Your task to perform on an android device: open app "Instagram" (install if not already installed) Image 0: 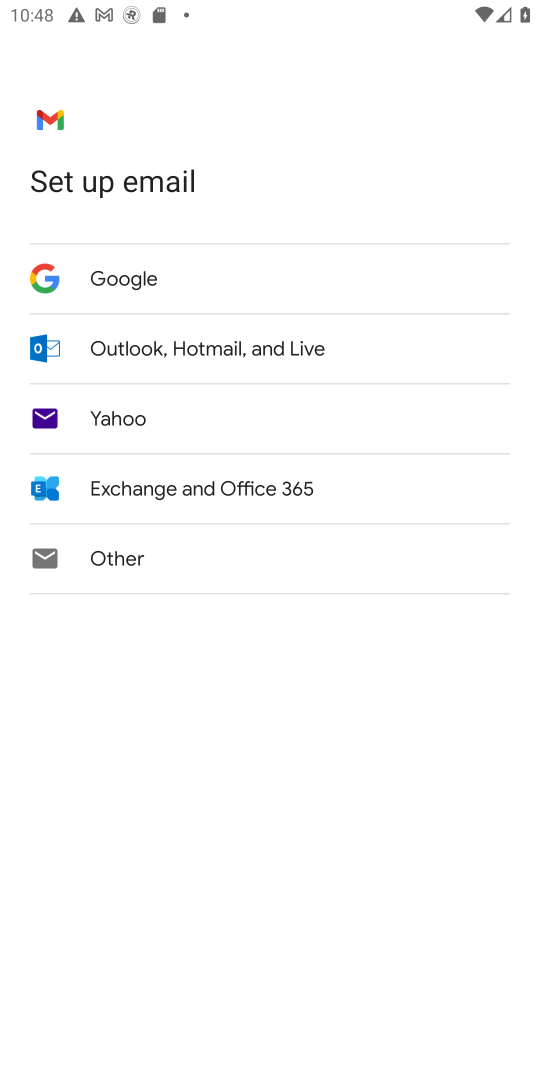
Step 0: press home button
Your task to perform on an android device: open app "Instagram" (install if not already installed) Image 1: 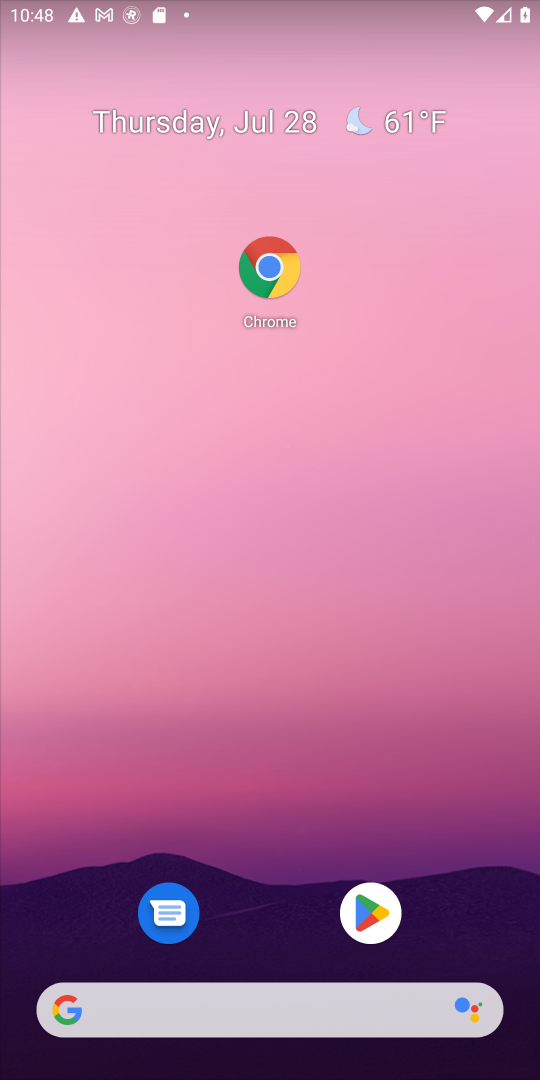
Step 1: click (368, 925)
Your task to perform on an android device: open app "Instagram" (install if not already installed) Image 2: 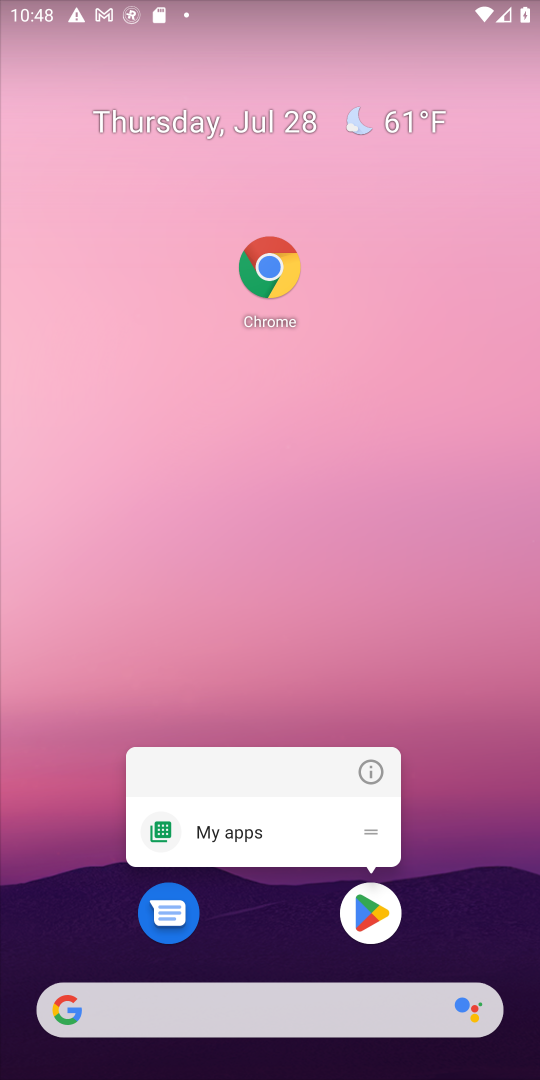
Step 2: click (363, 926)
Your task to perform on an android device: open app "Instagram" (install if not already installed) Image 3: 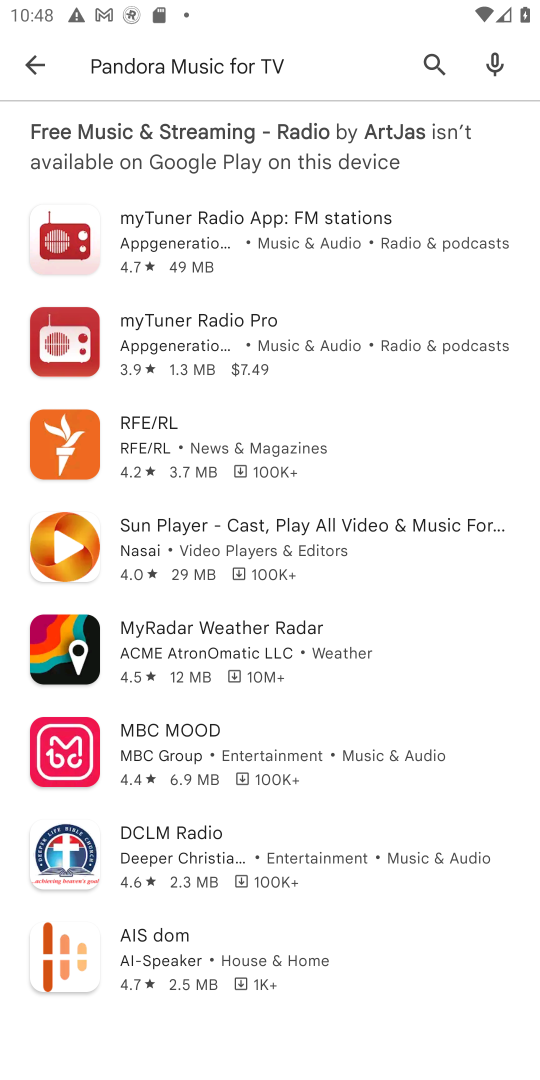
Step 3: click (432, 52)
Your task to perform on an android device: open app "Instagram" (install if not already installed) Image 4: 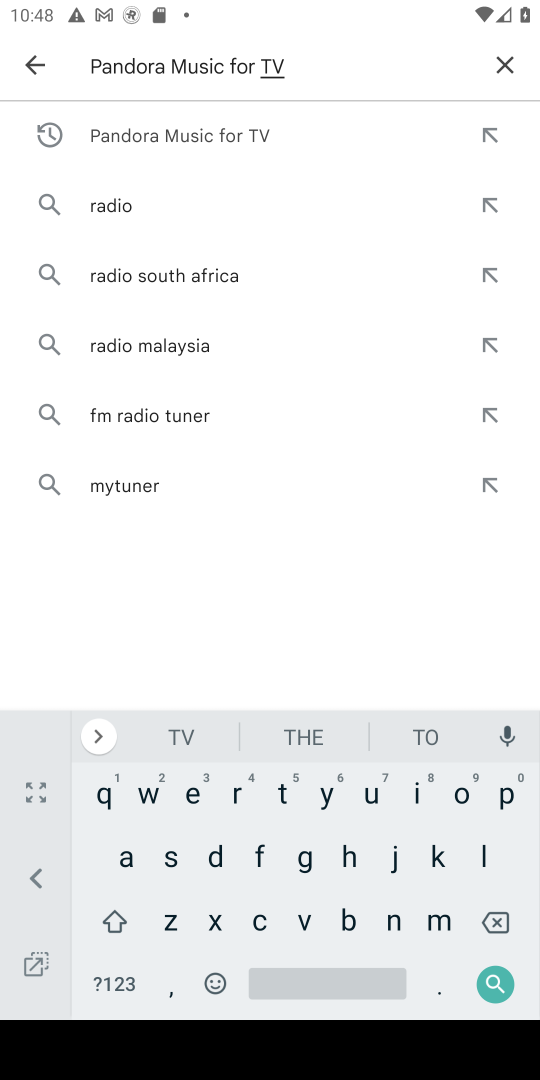
Step 4: click (501, 66)
Your task to perform on an android device: open app "Instagram" (install if not already installed) Image 5: 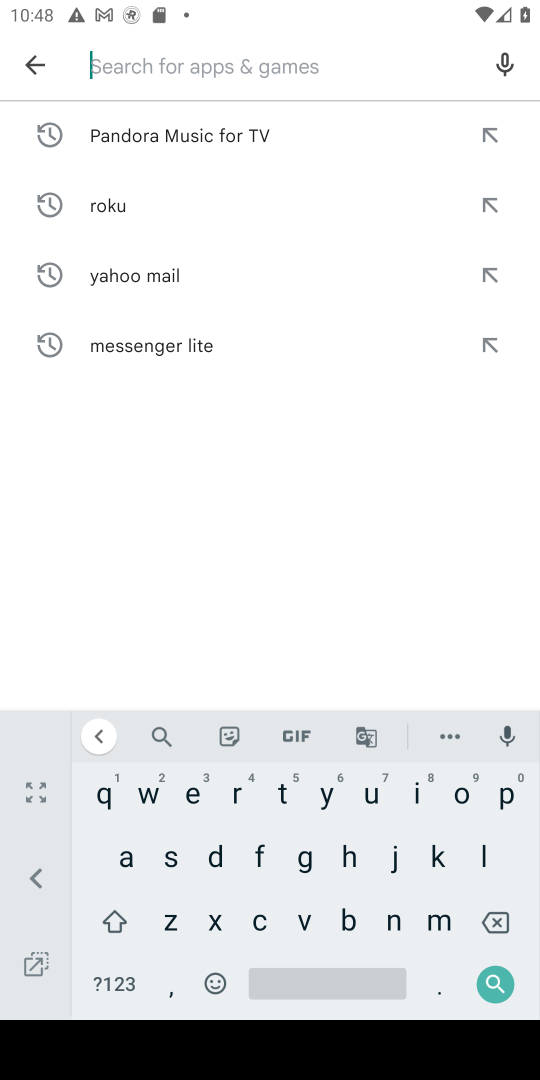
Step 5: type "instagram"
Your task to perform on an android device: open app "Instagram" (install if not already installed) Image 6: 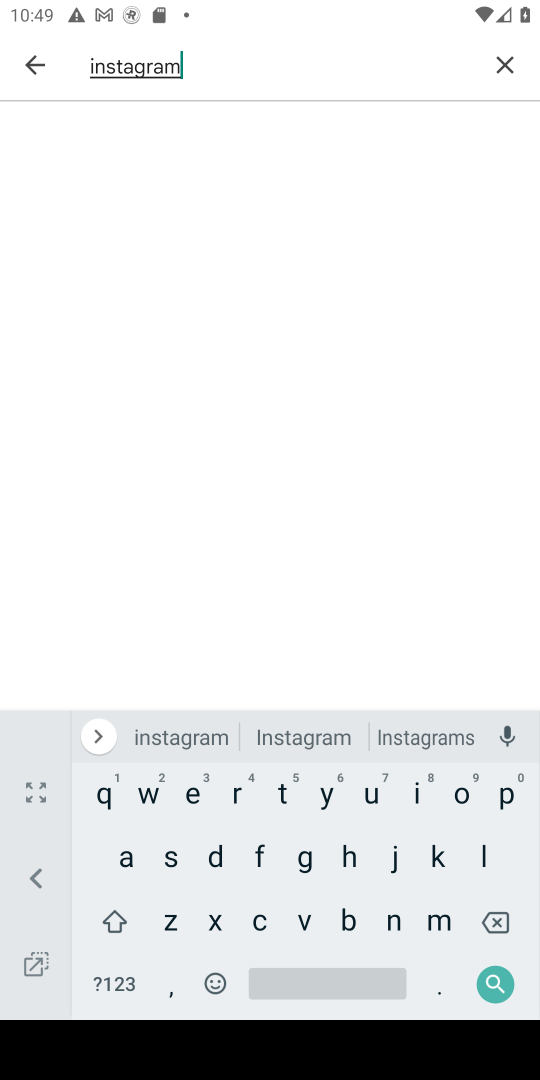
Step 6: click (486, 994)
Your task to perform on an android device: open app "Instagram" (install if not already installed) Image 7: 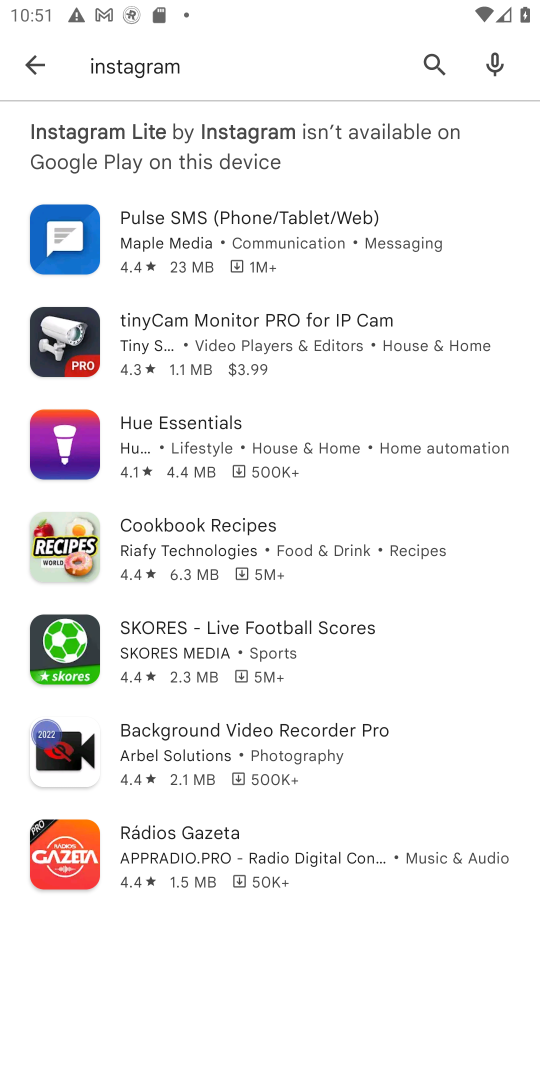
Step 7: task complete